Your task to perform on an android device: Search for pizza restaurants on Maps Image 0: 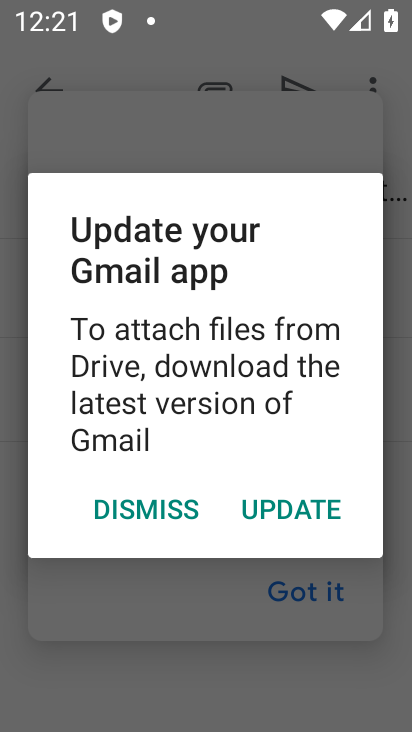
Step 0: press home button
Your task to perform on an android device: Search for pizza restaurants on Maps Image 1: 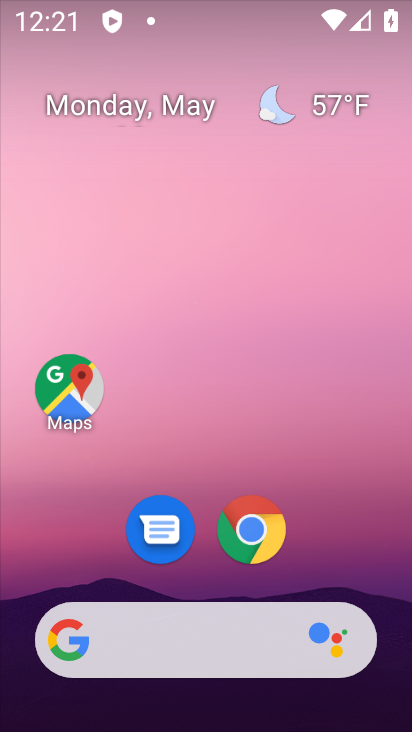
Step 1: click (72, 392)
Your task to perform on an android device: Search for pizza restaurants on Maps Image 2: 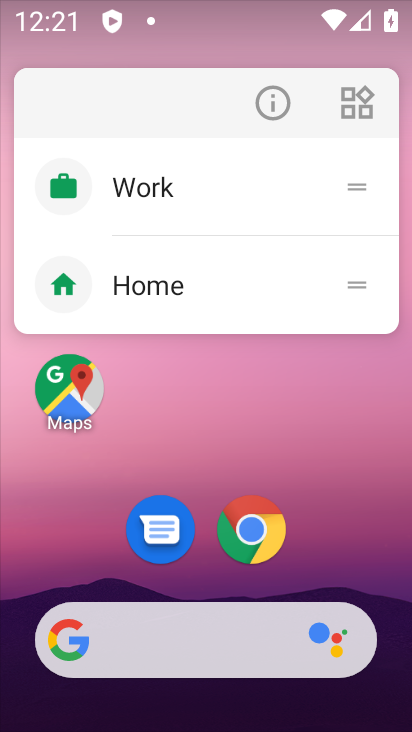
Step 2: click (71, 392)
Your task to perform on an android device: Search for pizza restaurants on Maps Image 3: 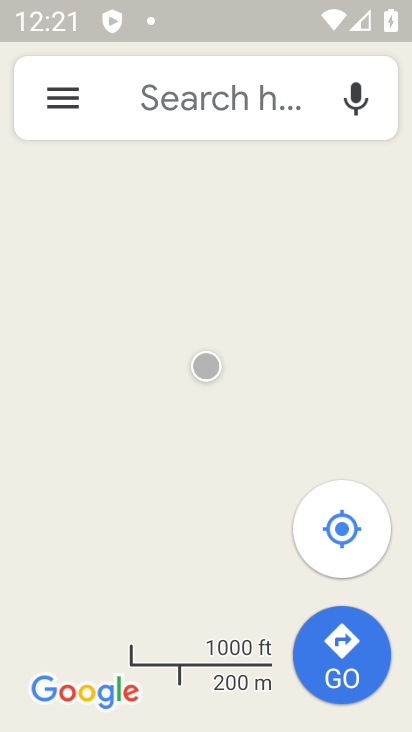
Step 3: click (214, 103)
Your task to perform on an android device: Search for pizza restaurants on Maps Image 4: 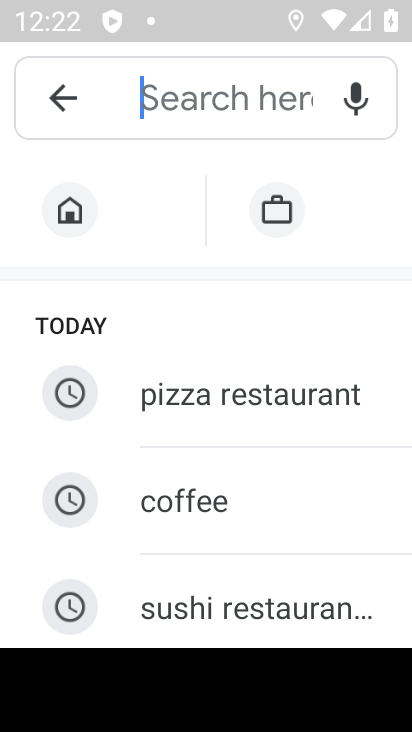
Step 4: type "pizza restaurants"
Your task to perform on an android device: Search for pizza restaurants on Maps Image 5: 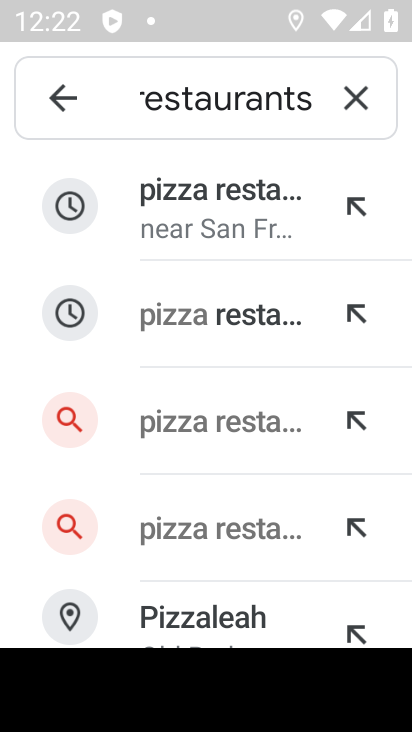
Step 5: click (215, 194)
Your task to perform on an android device: Search for pizza restaurants on Maps Image 6: 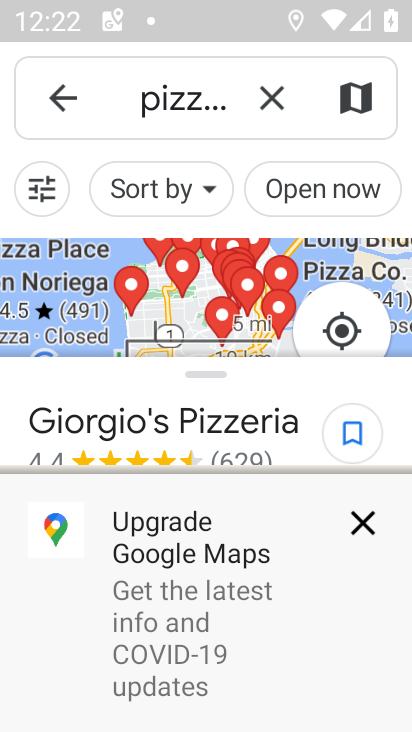
Step 6: click (368, 523)
Your task to perform on an android device: Search for pizza restaurants on Maps Image 7: 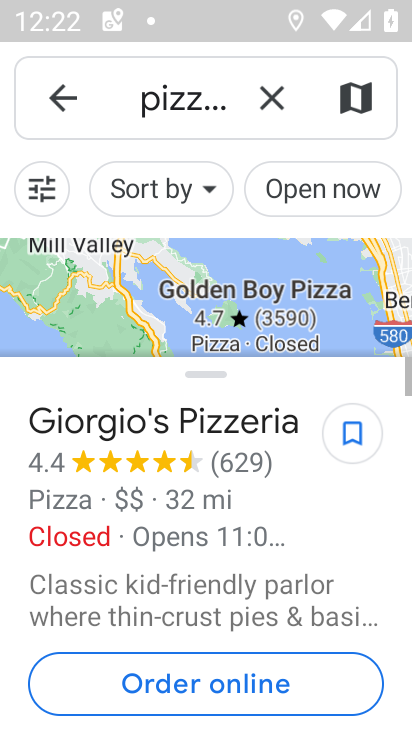
Step 7: task complete